Your task to perform on an android device: Open wifi settings Image 0: 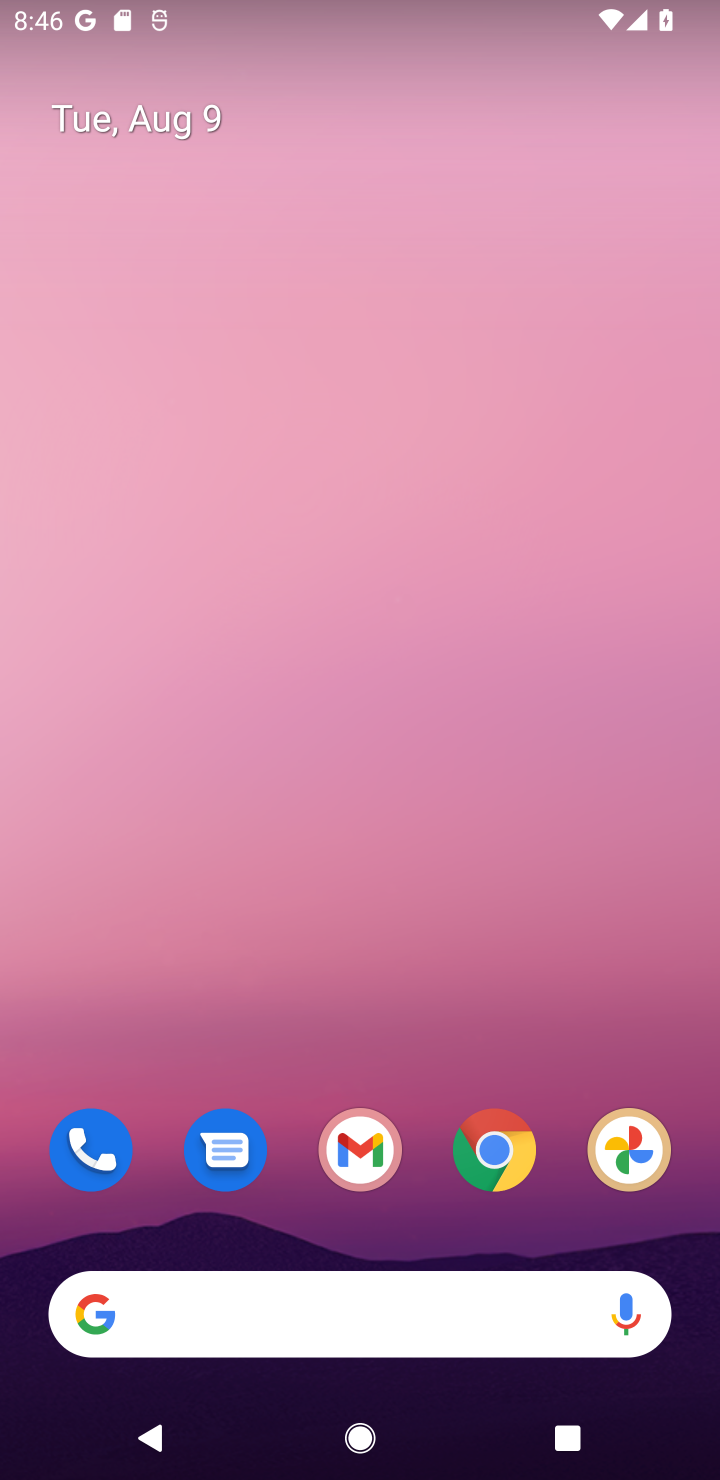
Step 0: drag from (301, 387) to (544, 38)
Your task to perform on an android device: Open wifi settings Image 1: 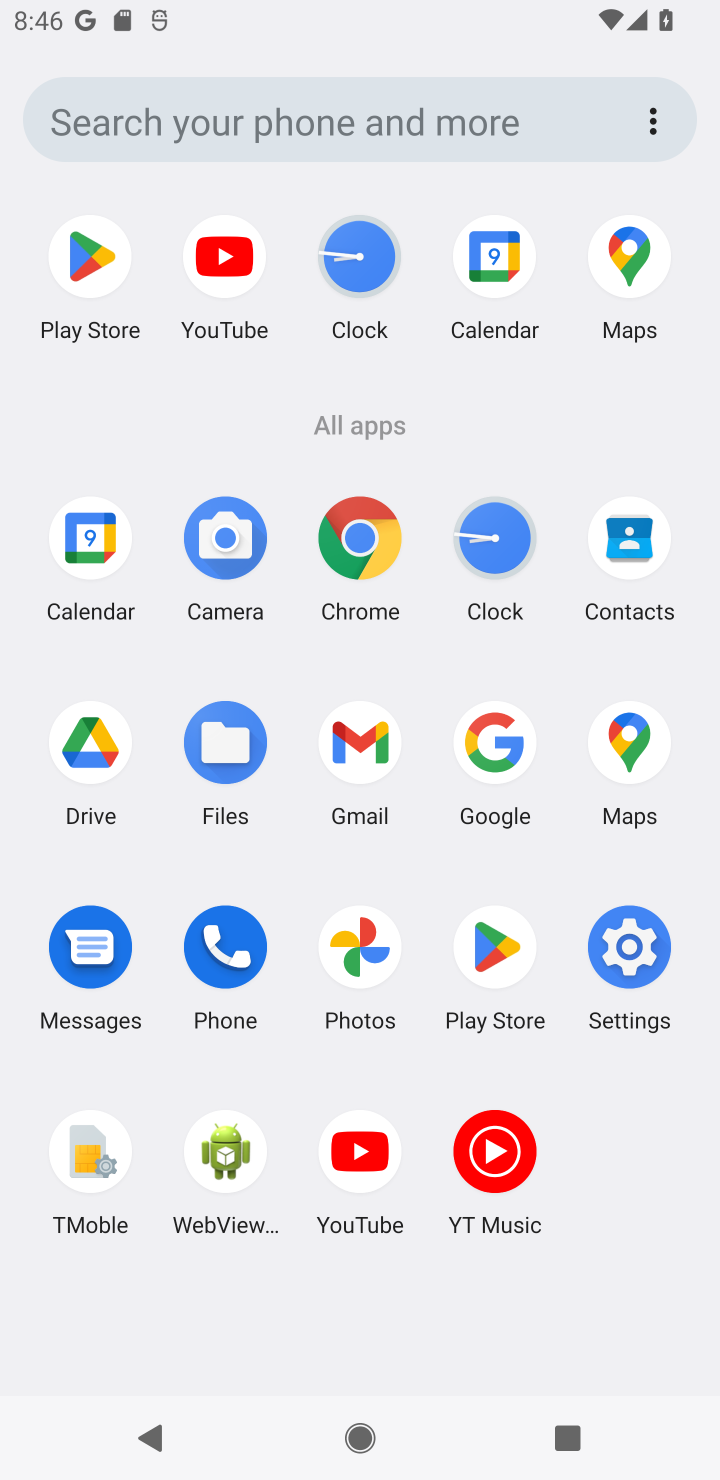
Step 1: press home button
Your task to perform on an android device: Open wifi settings Image 2: 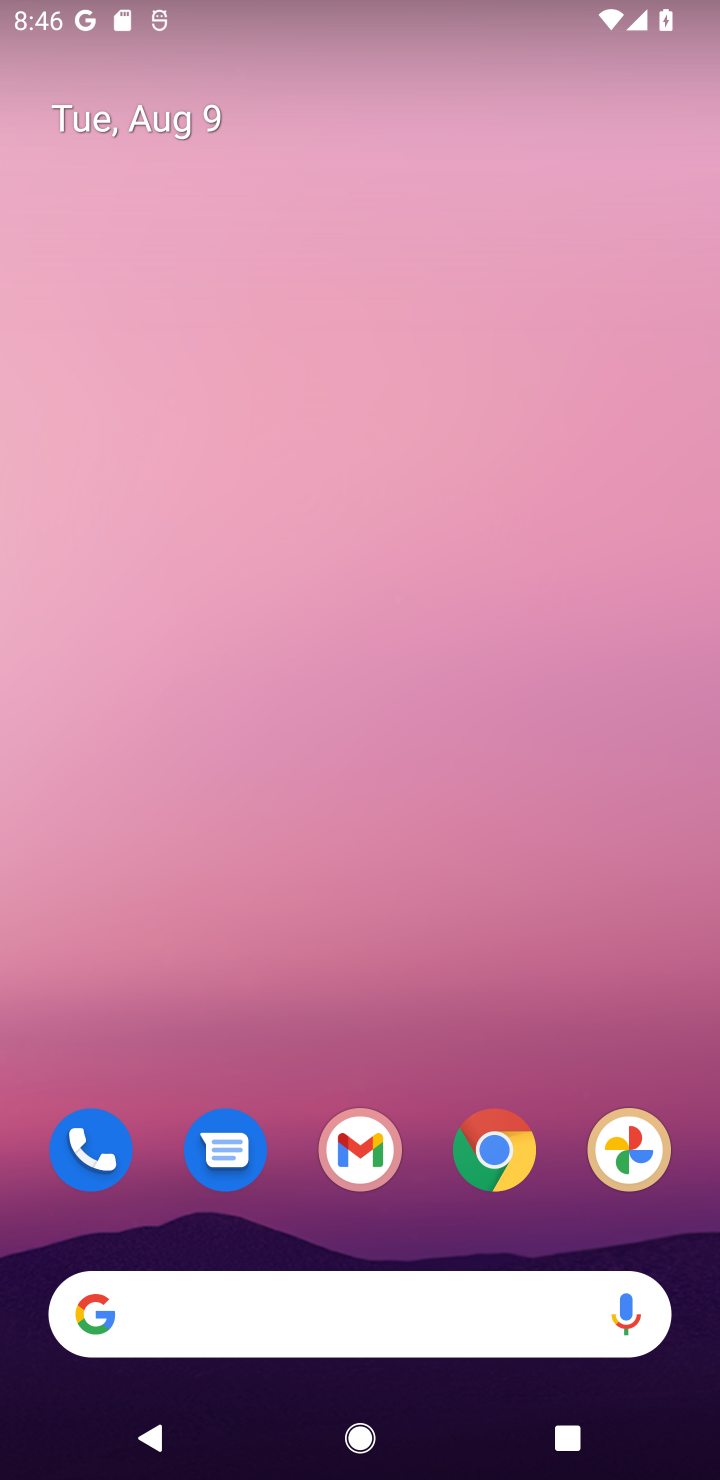
Step 2: drag from (393, 1130) to (702, 8)
Your task to perform on an android device: Open wifi settings Image 3: 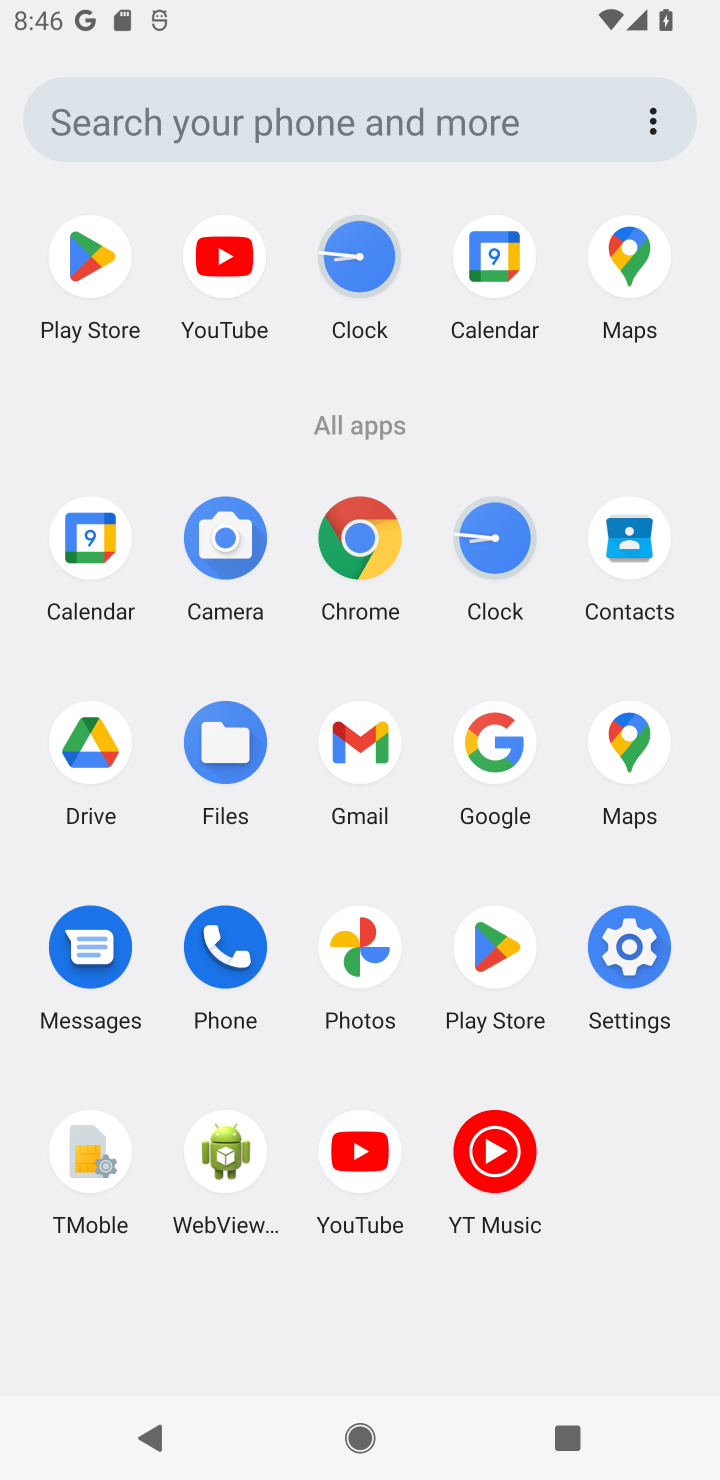
Step 3: click (607, 969)
Your task to perform on an android device: Open wifi settings Image 4: 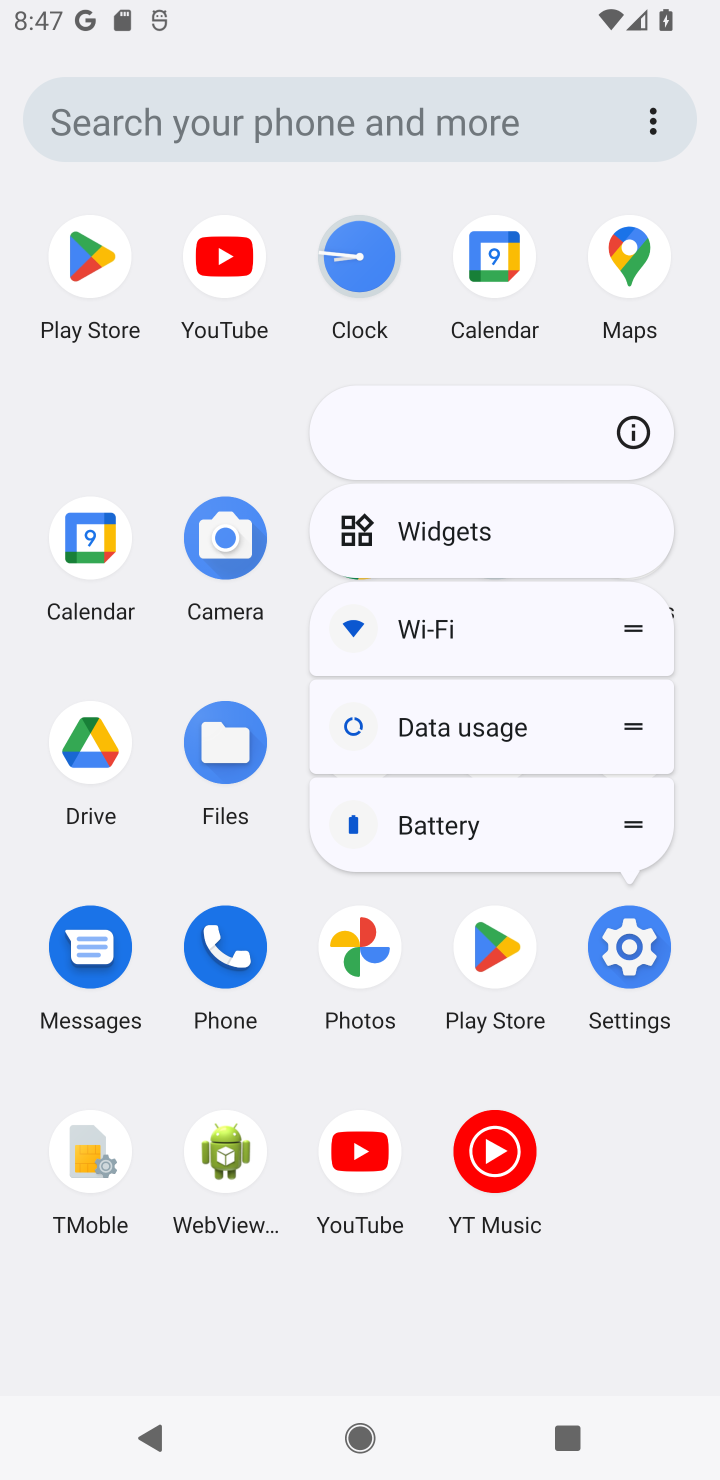
Step 4: click (672, 997)
Your task to perform on an android device: Open wifi settings Image 5: 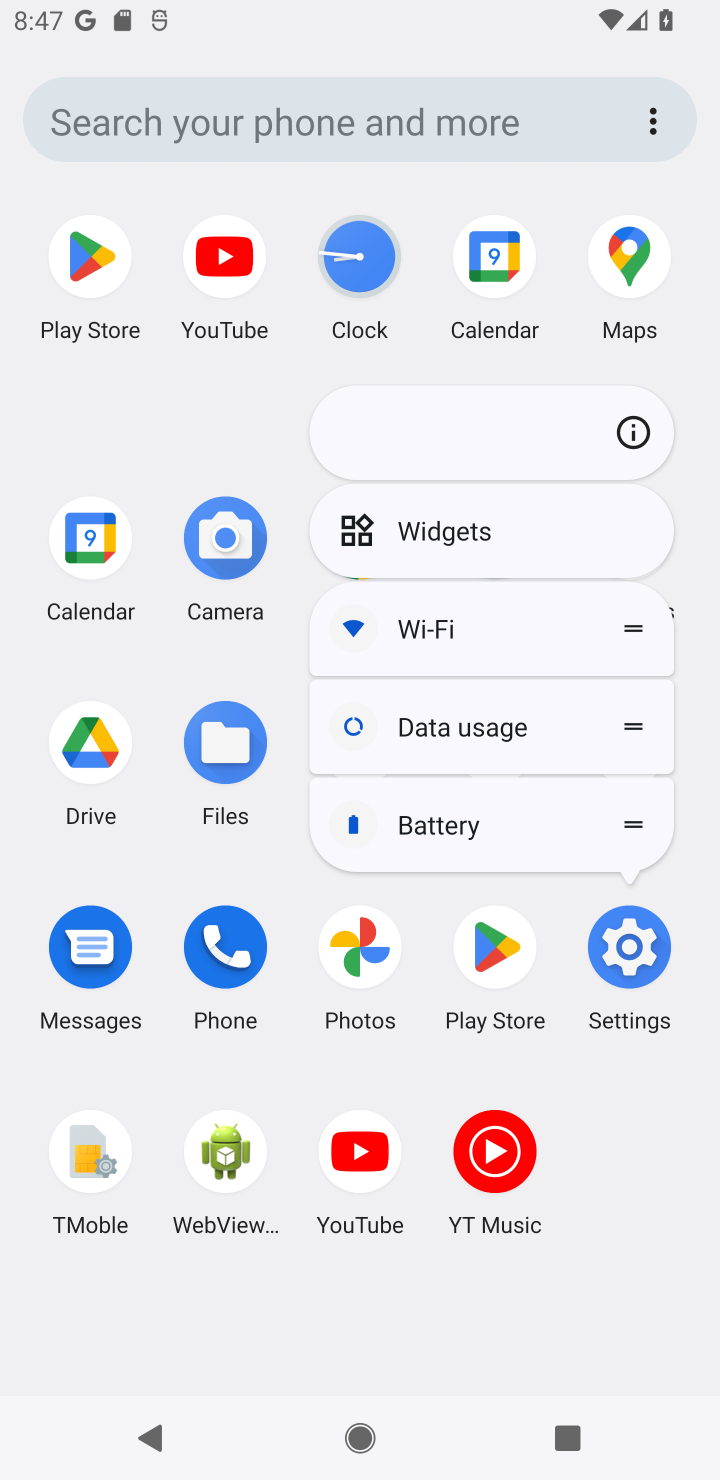
Step 5: click (625, 972)
Your task to perform on an android device: Open wifi settings Image 6: 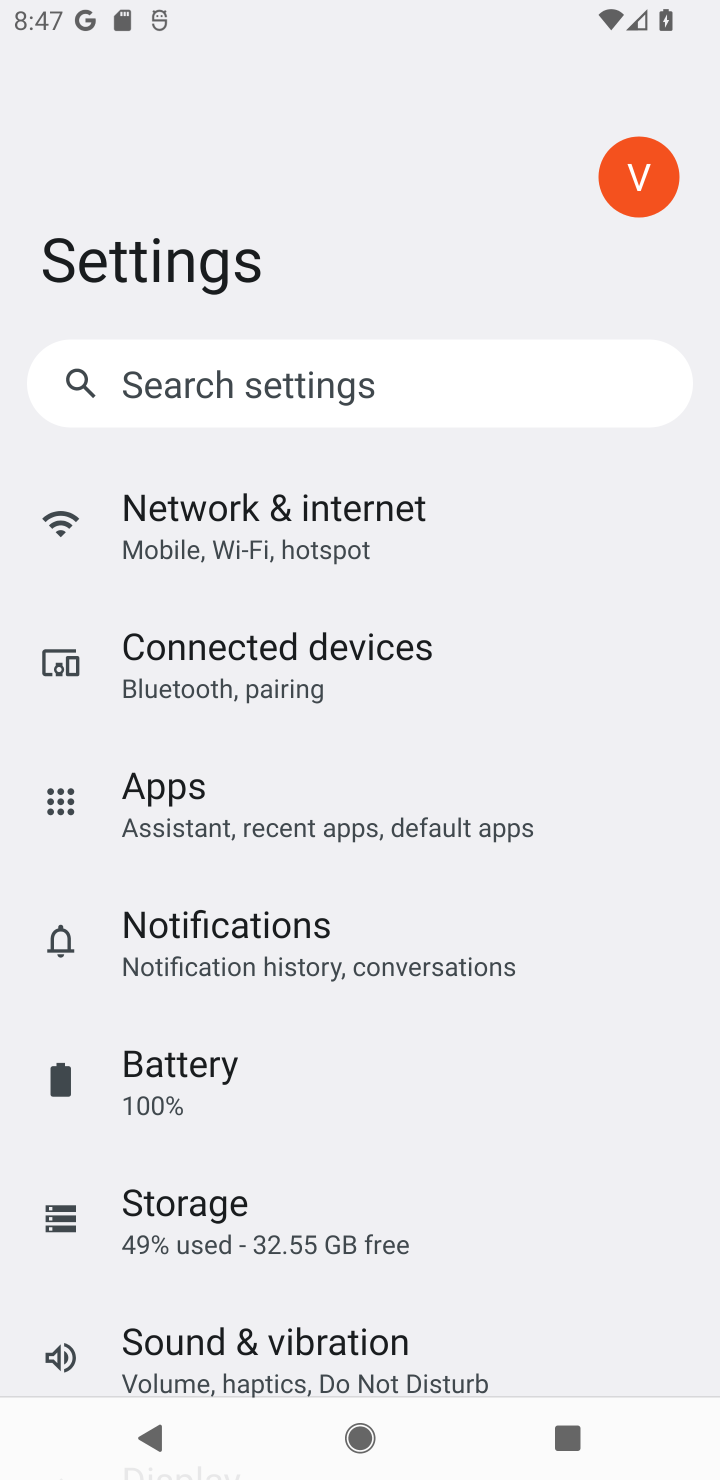
Step 6: click (323, 537)
Your task to perform on an android device: Open wifi settings Image 7: 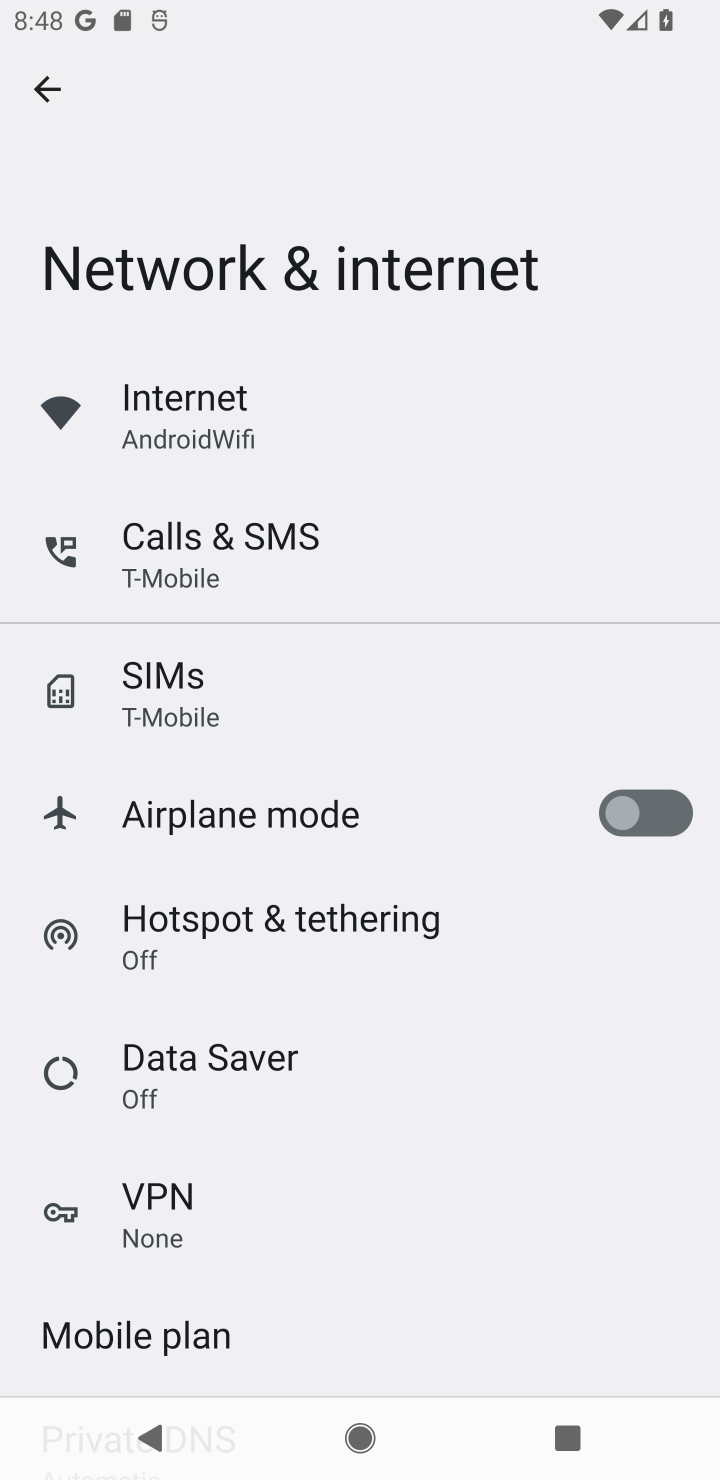
Step 7: click (198, 400)
Your task to perform on an android device: Open wifi settings Image 8: 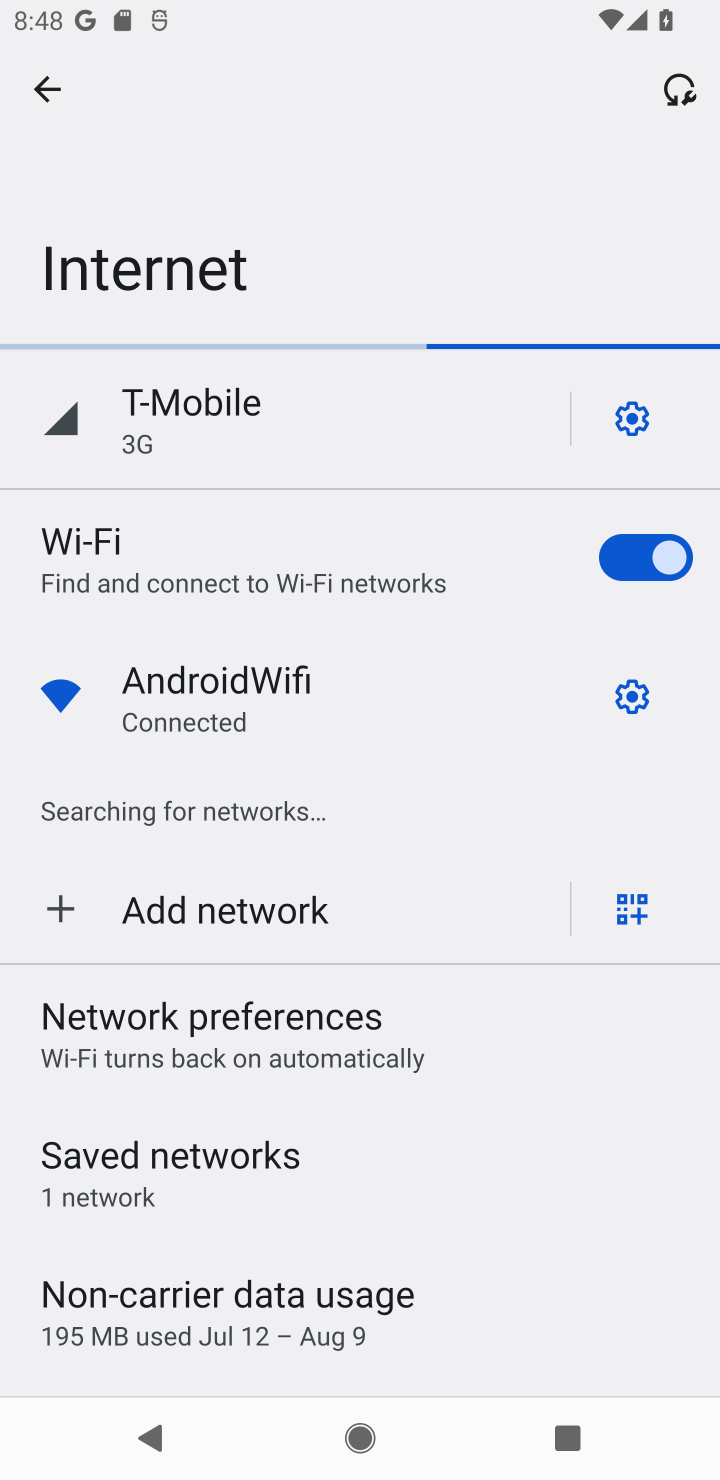
Step 8: task complete